Your task to perform on an android device: Is it going to rain this weekend? Image 0: 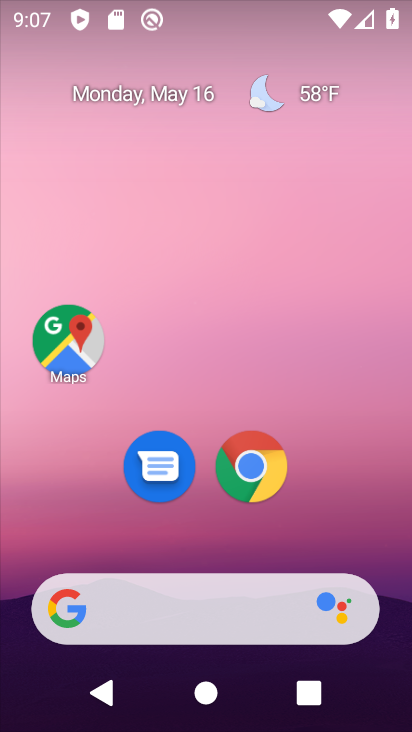
Step 0: drag from (302, 516) to (280, 41)
Your task to perform on an android device: Is it going to rain this weekend? Image 1: 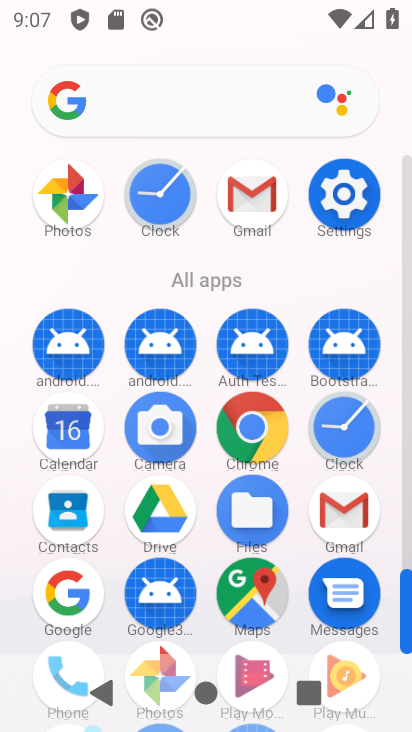
Step 1: click (190, 107)
Your task to perform on an android device: Is it going to rain this weekend? Image 2: 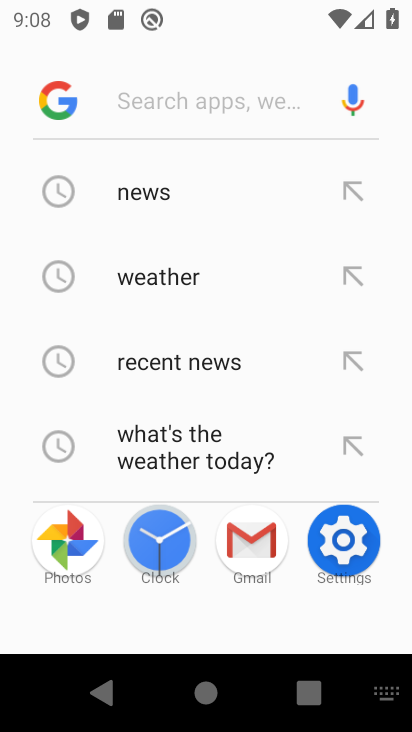
Step 2: type "is it going to this weekend"
Your task to perform on an android device: Is it going to rain this weekend? Image 3: 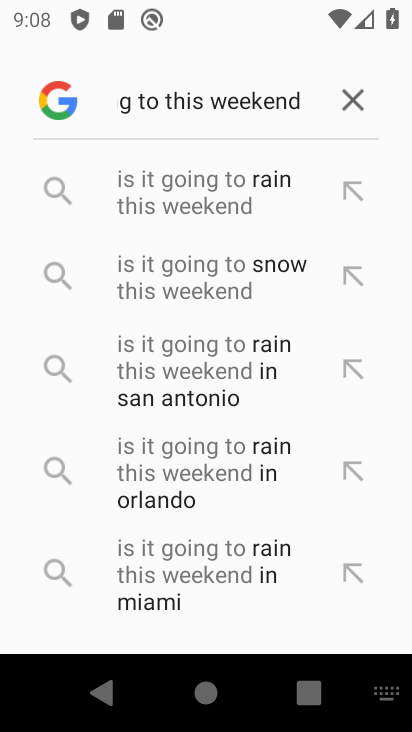
Step 3: click (244, 185)
Your task to perform on an android device: Is it going to rain this weekend? Image 4: 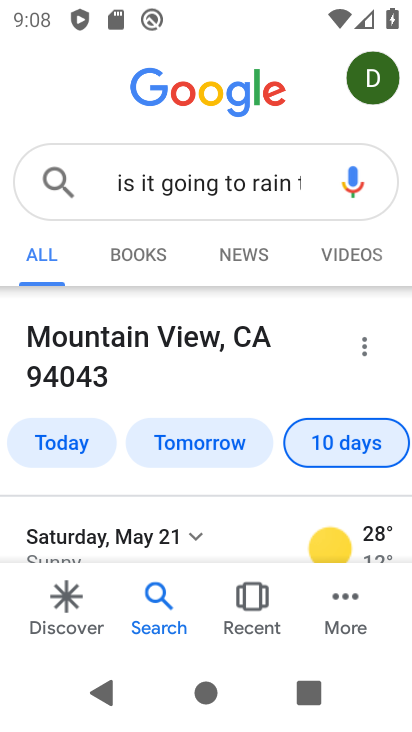
Step 4: task complete